Your task to perform on an android device: find photos in the google photos app Image 0: 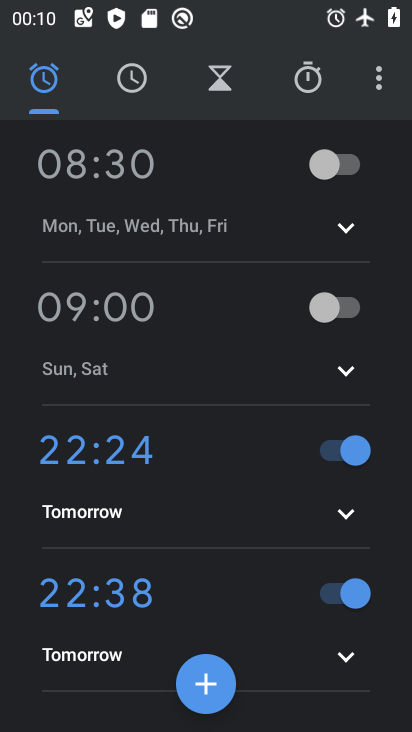
Step 0: press home button
Your task to perform on an android device: find photos in the google photos app Image 1: 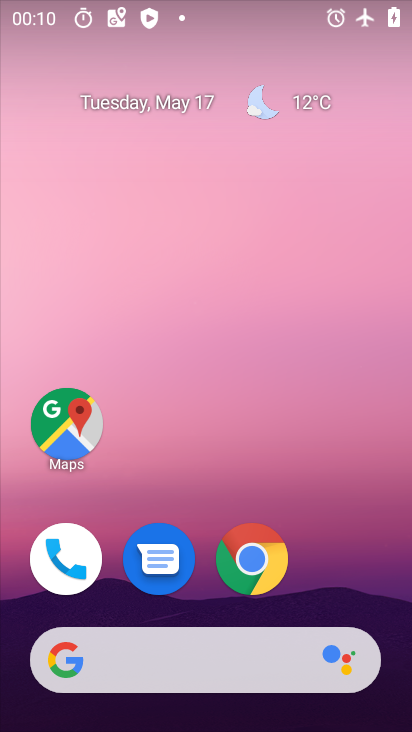
Step 1: drag from (356, 512) to (260, 45)
Your task to perform on an android device: find photos in the google photos app Image 2: 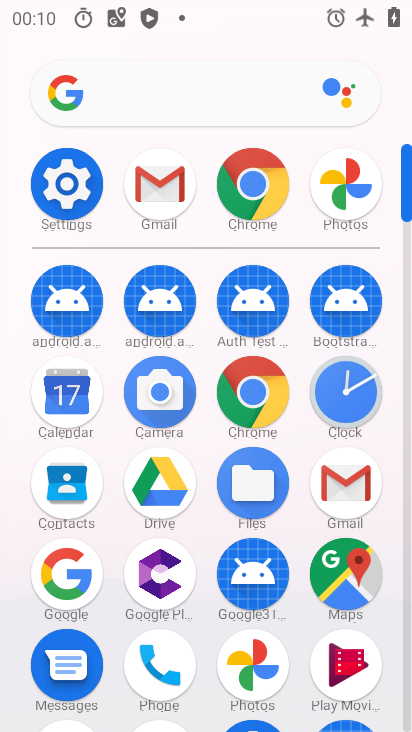
Step 2: click (258, 664)
Your task to perform on an android device: find photos in the google photos app Image 3: 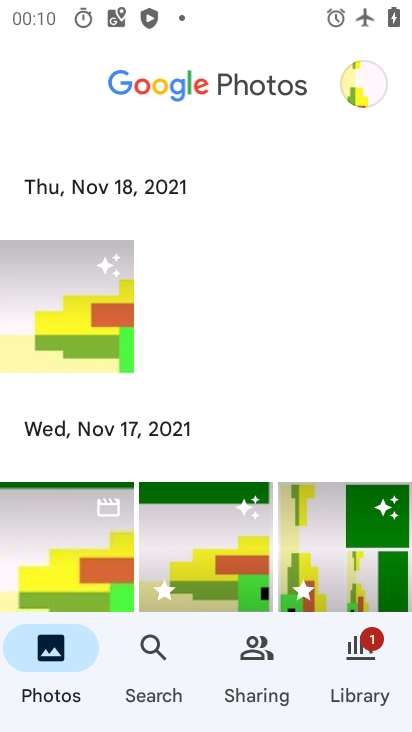
Step 3: task complete